Your task to perform on an android device: turn on improve location accuracy Image 0: 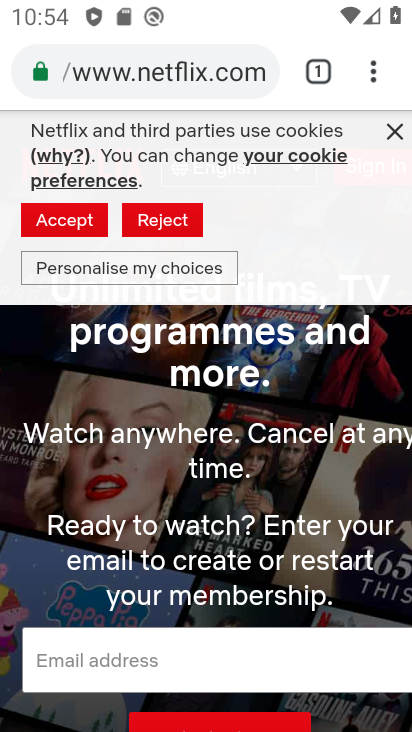
Step 0: press home button
Your task to perform on an android device: turn on improve location accuracy Image 1: 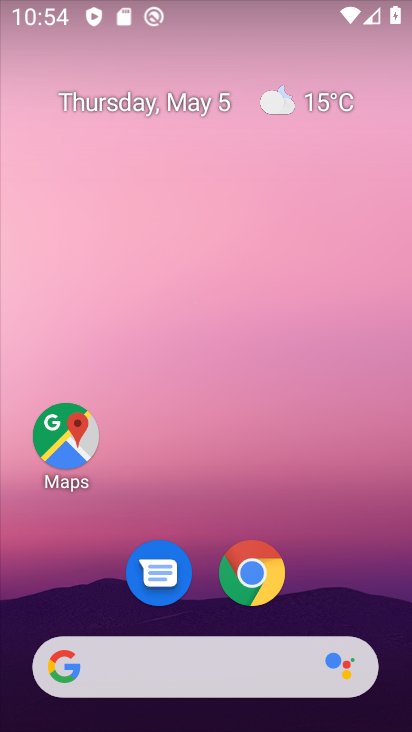
Step 1: drag from (63, 635) to (177, 130)
Your task to perform on an android device: turn on improve location accuracy Image 2: 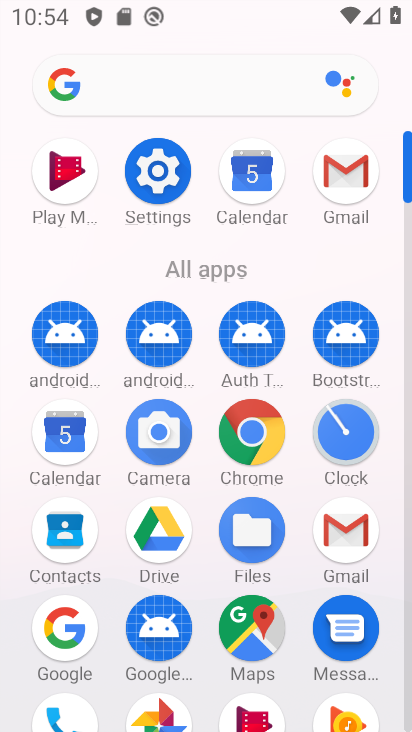
Step 2: drag from (187, 658) to (288, 323)
Your task to perform on an android device: turn on improve location accuracy Image 3: 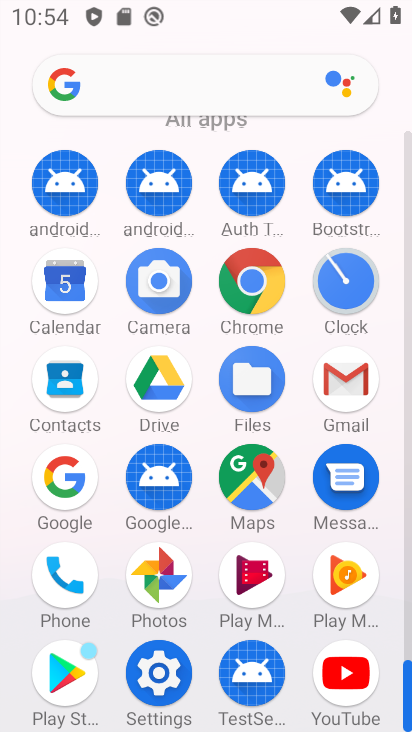
Step 3: click (157, 673)
Your task to perform on an android device: turn on improve location accuracy Image 4: 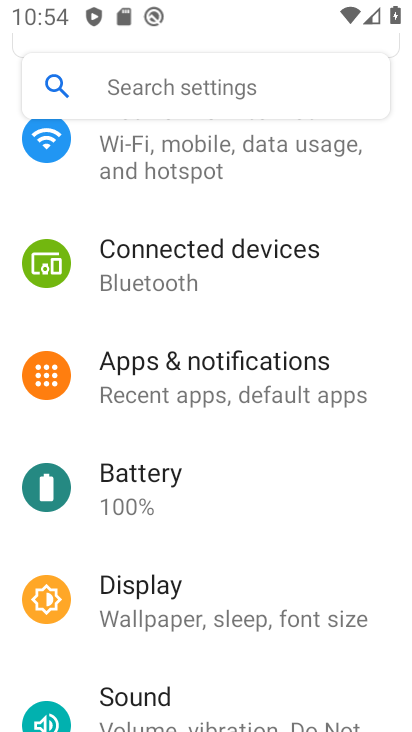
Step 4: drag from (236, 630) to (346, 135)
Your task to perform on an android device: turn on improve location accuracy Image 5: 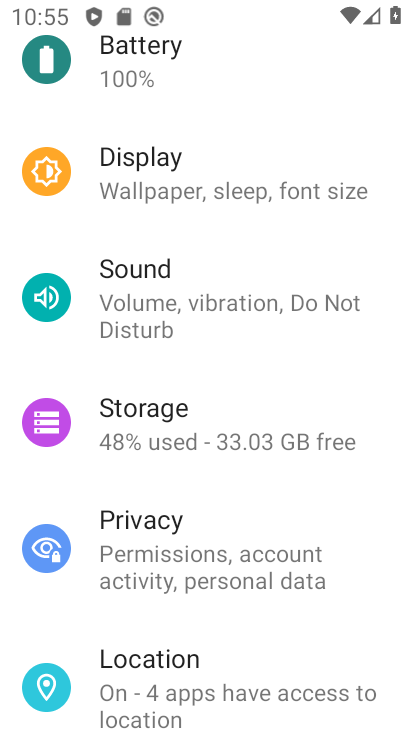
Step 5: drag from (165, 675) to (226, 276)
Your task to perform on an android device: turn on improve location accuracy Image 6: 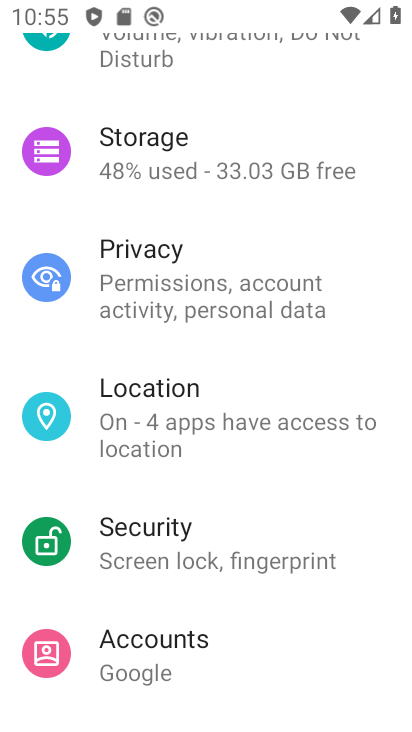
Step 6: drag from (184, 699) to (320, 233)
Your task to perform on an android device: turn on improve location accuracy Image 7: 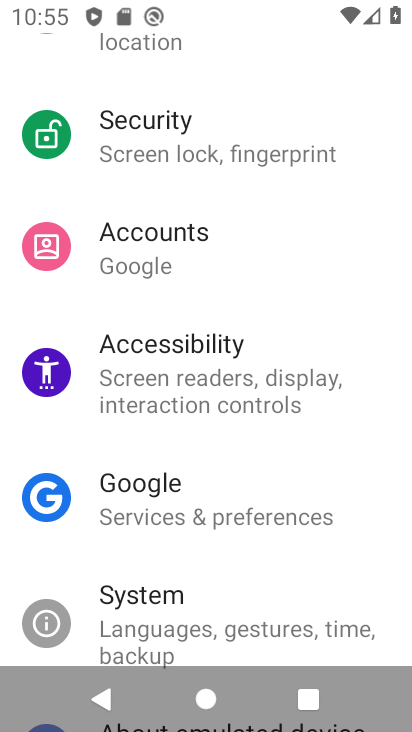
Step 7: drag from (223, 561) to (328, 237)
Your task to perform on an android device: turn on improve location accuracy Image 8: 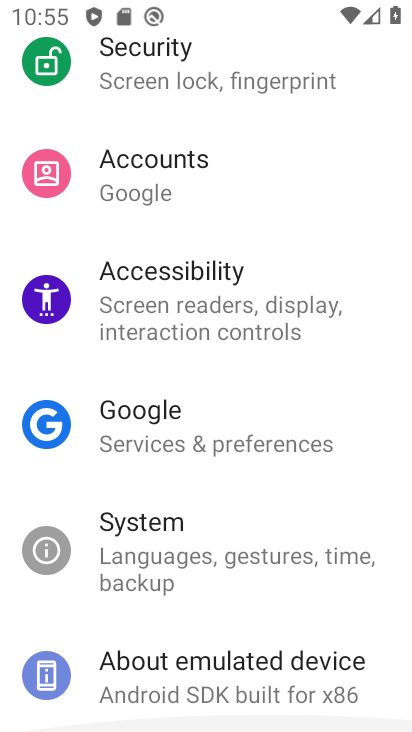
Step 8: drag from (278, 193) to (263, 584)
Your task to perform on an android device: turn on improve location accuracy Image 9: 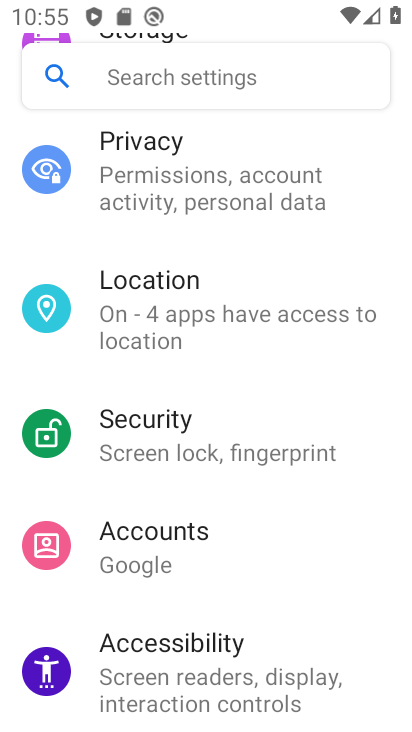
Step 9: click (162, 302)
Your task to perform on an android device: turn on improve location accuracy Image 10: 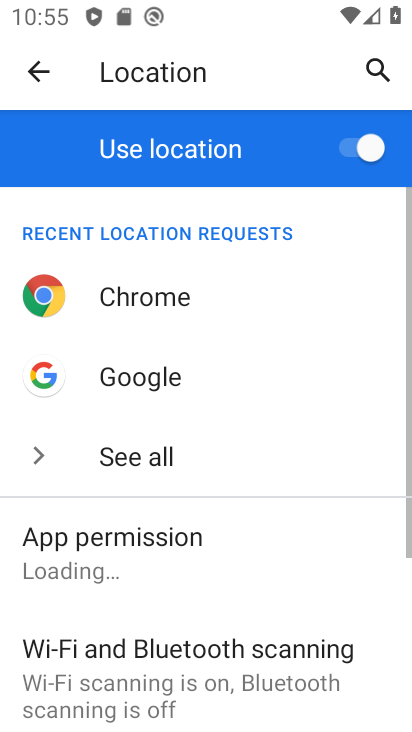
Step 10: drag from (216, 601) to (325, 258)
Your task to perform on an android device: turn on improve location accuracy Image 11: 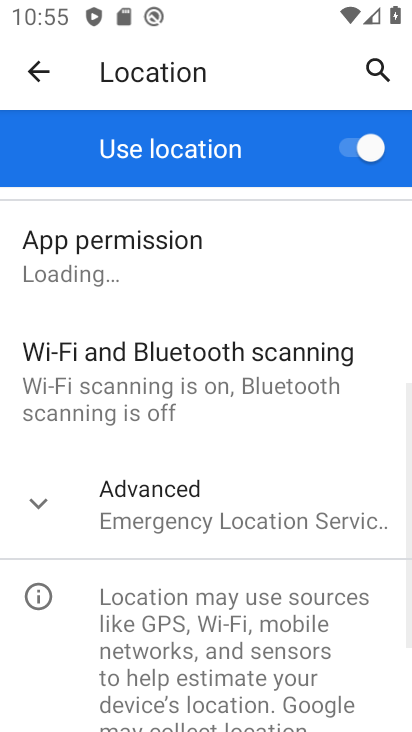
Step 11: click (217, 534)
Your task to perform on an android device: turn on improve location accuracy Image 12: 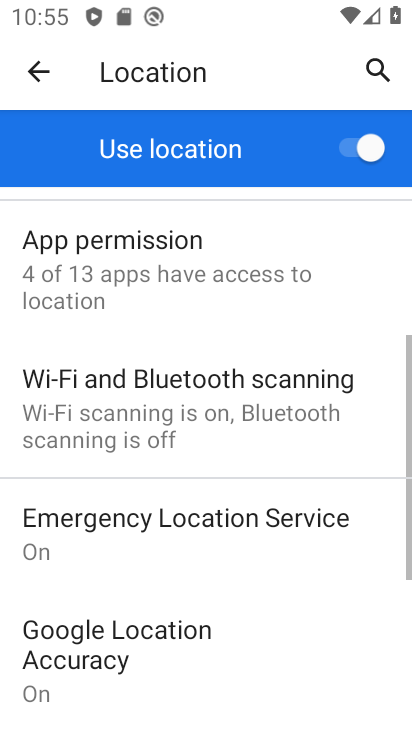
Step 12: drag from (199, 592) to (332, 218)
Your task to perform on an android device: turn on improve location accuracy Image 13: 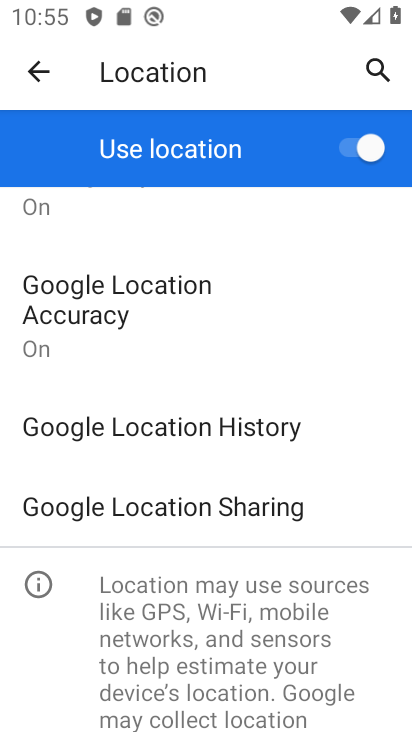
Step 13: click (114, 335)
Your task to perform on an android device: turn on improve location accuracy Image 14: 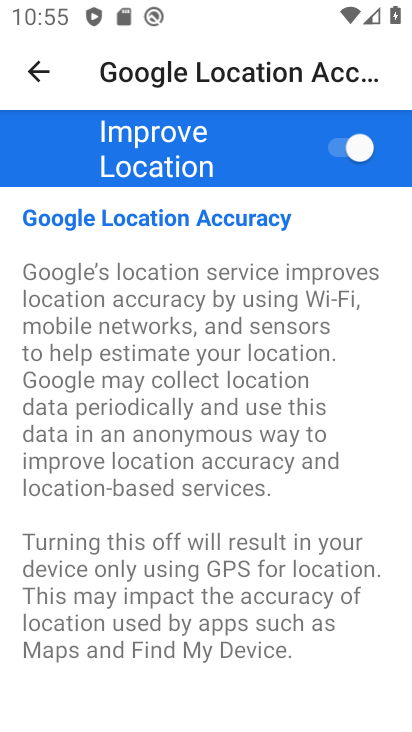
Step 14: task complete